Your task to perform on an android device: delete the emails in spam in the gmail app Image 0: 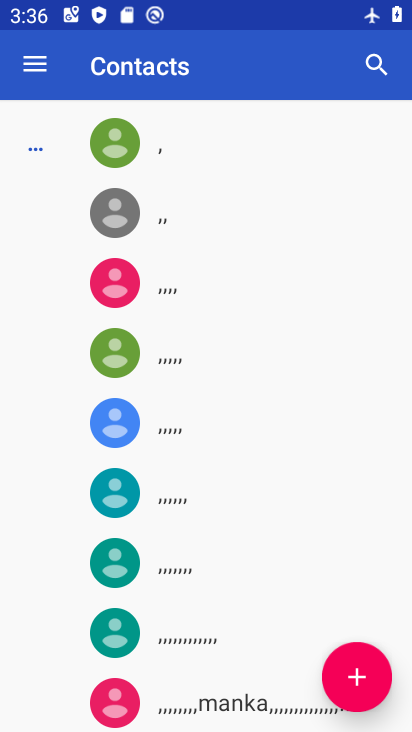
Step 0: press home button
Your task to perform on an android device: delete the emails in spam in the gmail app Image 1: 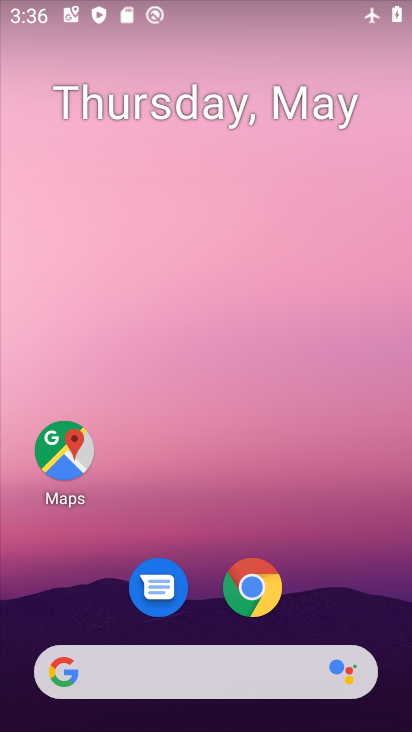
Step 1: drag from (209, 645) to (272, 145)
Your task to perform on an android device: delete the emails in spam in the gmail app Image 2: 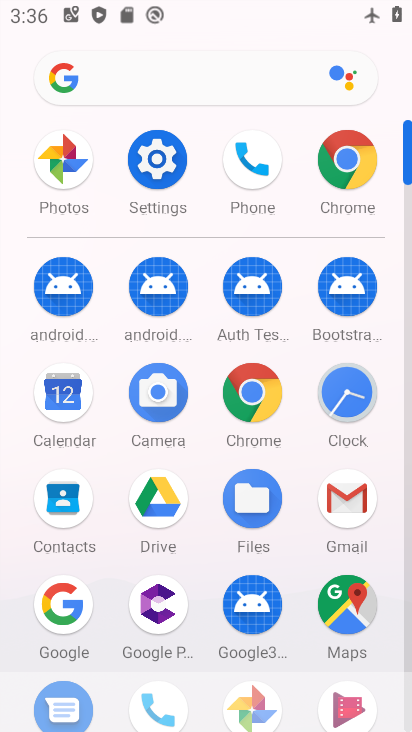
Step 2: click (332, 517)
Your task to perform on an android device: delete the emails in spam in the gmail app Image 3: 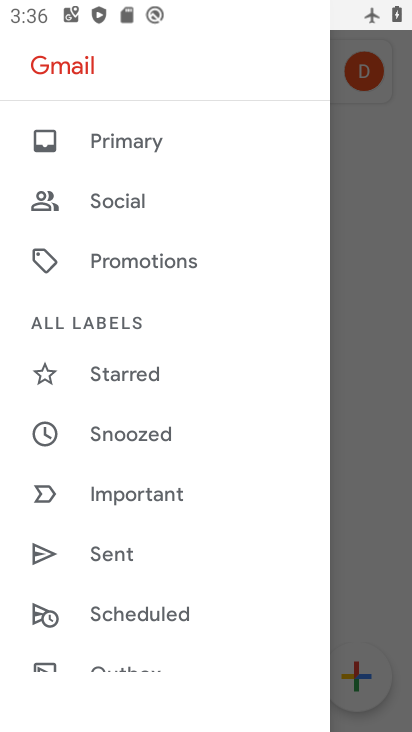
Step 3: drag from (142, 512) to (167, 248)
Your task to perform on an android device: delete the emails in spam in the gmail app Image 4: 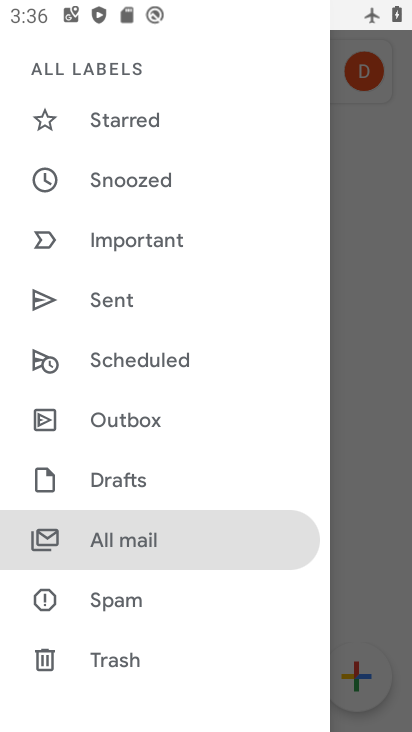
Step 4: click (111, 548)
Your task to perform on an android device: delete the emails in spam in the gmail app Image 5: 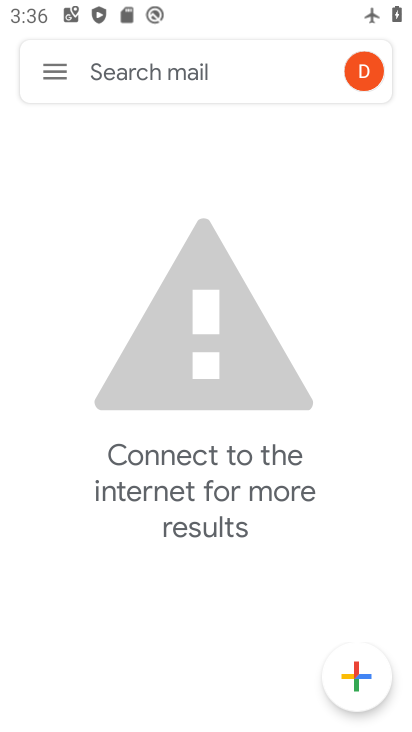
Step 5: task complete